Your task to perform on an android device: toggle javascript in the chrome app Image 0: 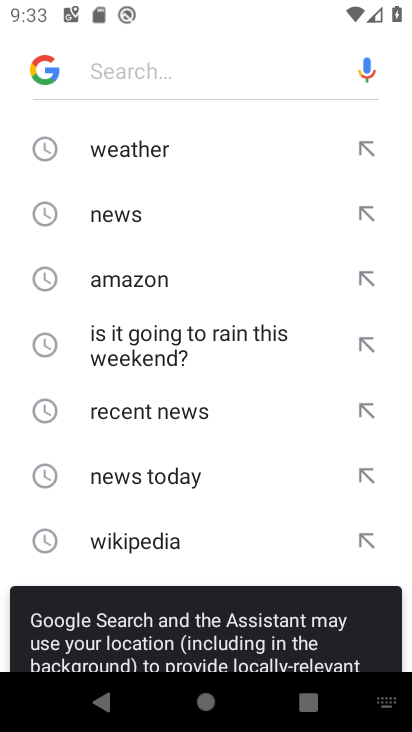
Step 0: press home button
Your task to perform on an android device: toggle javascript in the chrome app Image 1: 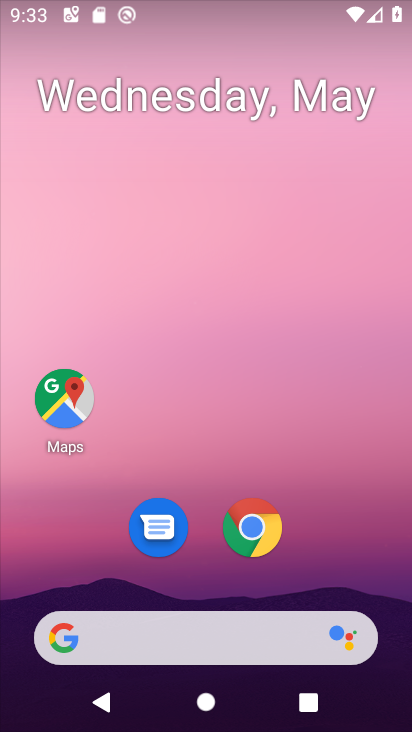
Step 1: click (256, 520)
Your task to perform on an android device: toggle javascript in the chrome app Image 2: 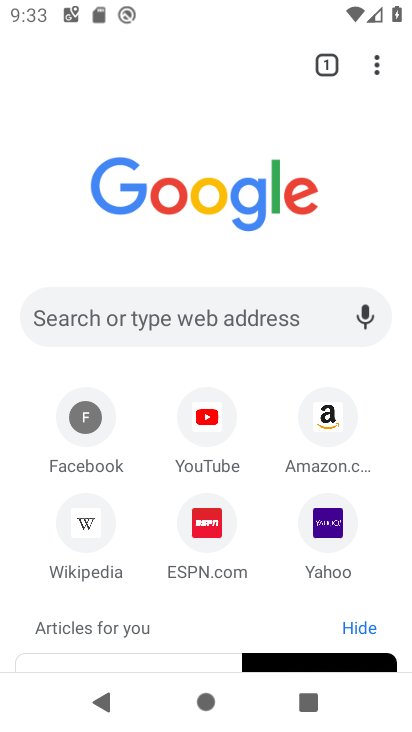
Step 2: click (367, 66)
Your task to perform on an android device: toggle javascript in the chrome app Image 3: 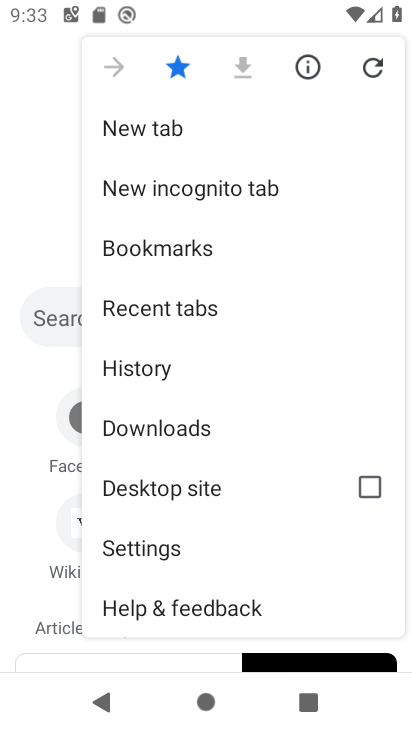
Step 3: click (163, 549)
Your task to perform on an android device: toggle javascript in the chrome app Image 4: 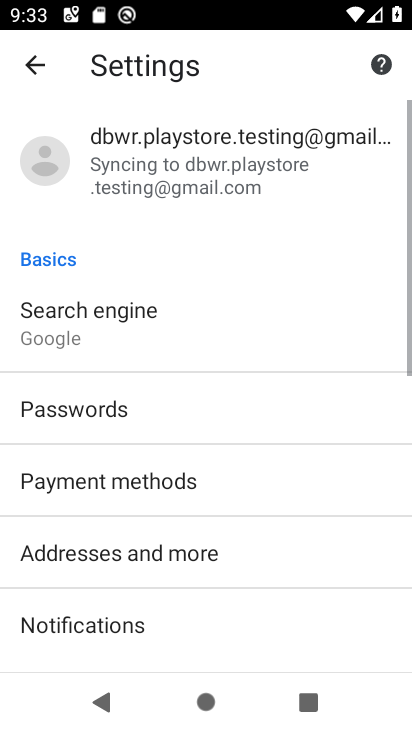
Step 4: drag from (264, 554) to (279, 82)
Your task to perform on an android device: toggle javascript in the chrome app Image 5: 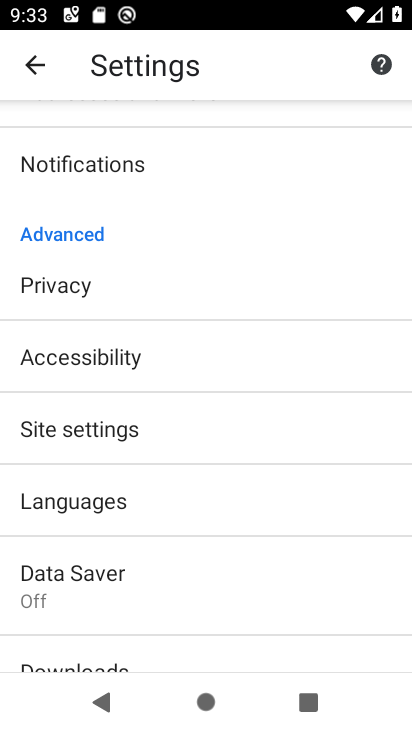
Step 5: click (104, 429)
Your task to perform on an android device: toggle javascript in the chrome app Image 6: 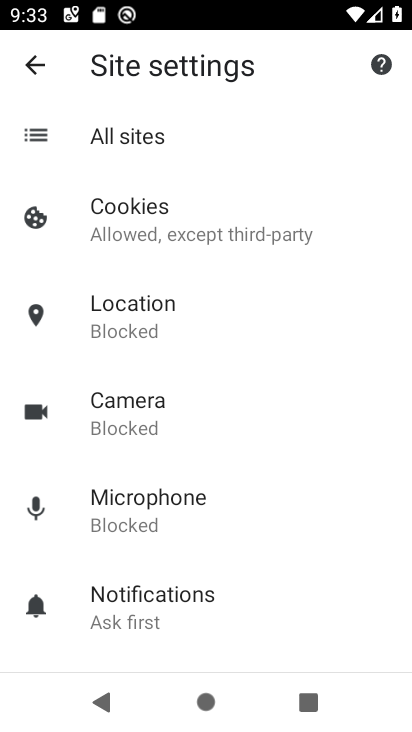
Step 6: drag from (194, 540) to (200, 227)
Your task to perform on an android device: toggle javascript in the chrome app Image 7: 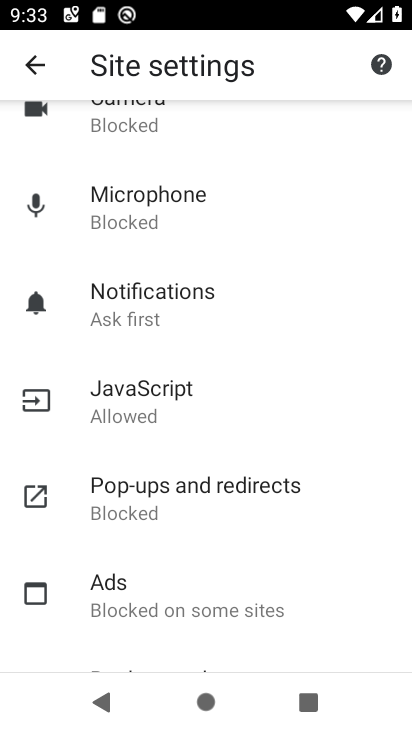
Step 7: click (164, 390)
Your task to perform on an android device: toggle javascript in the chrome app Image 8: 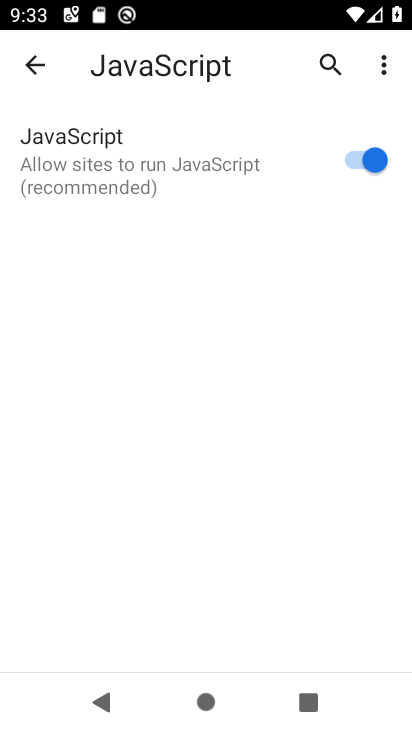
Step 8: click (362, 155)
Your task to perform on an android device: toggle javascript in the chrome app Image 9: 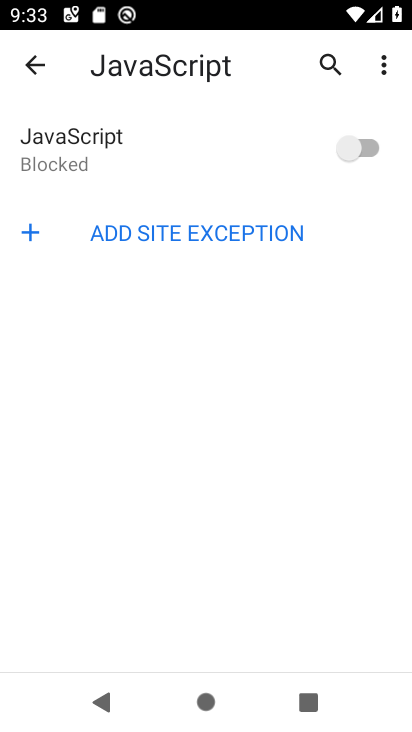
Step 9: task complete